Your task to perform on an android device: Open Reddit.com Image 0: 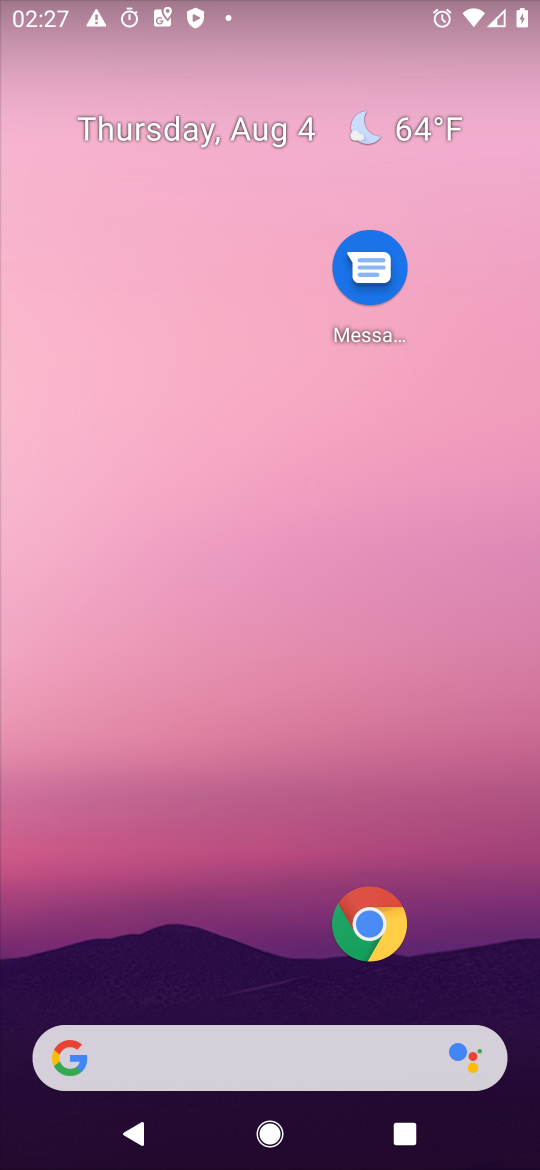
Step 0: click (184, 1067)
Your task to perform on an android device: Open Reddit.com Image 1: 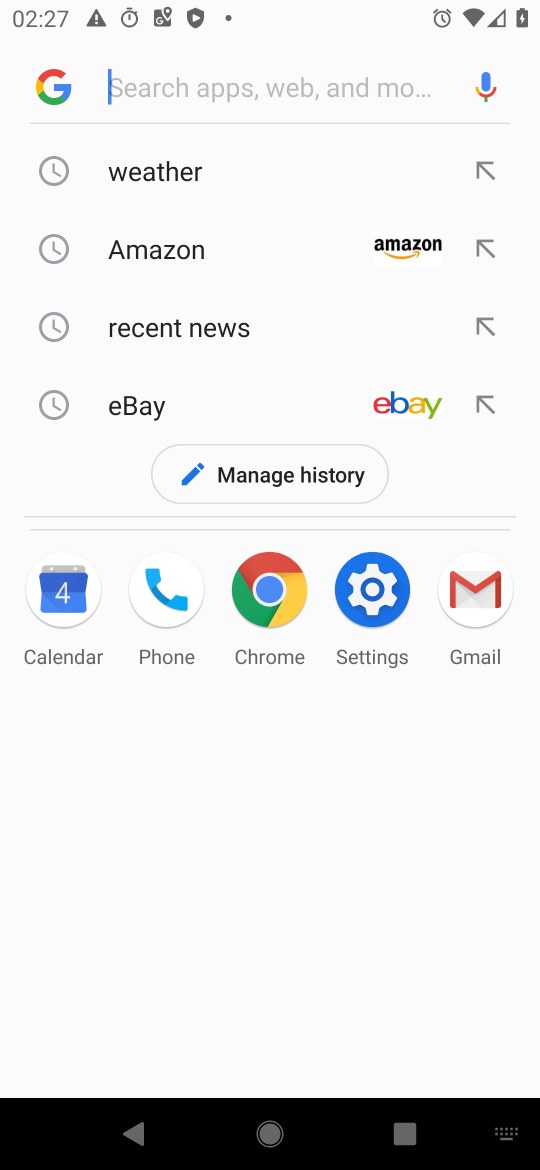
Step 1: type "Reddit.com"
Your task to perform on an android device: Open Reddit.com Image 2: 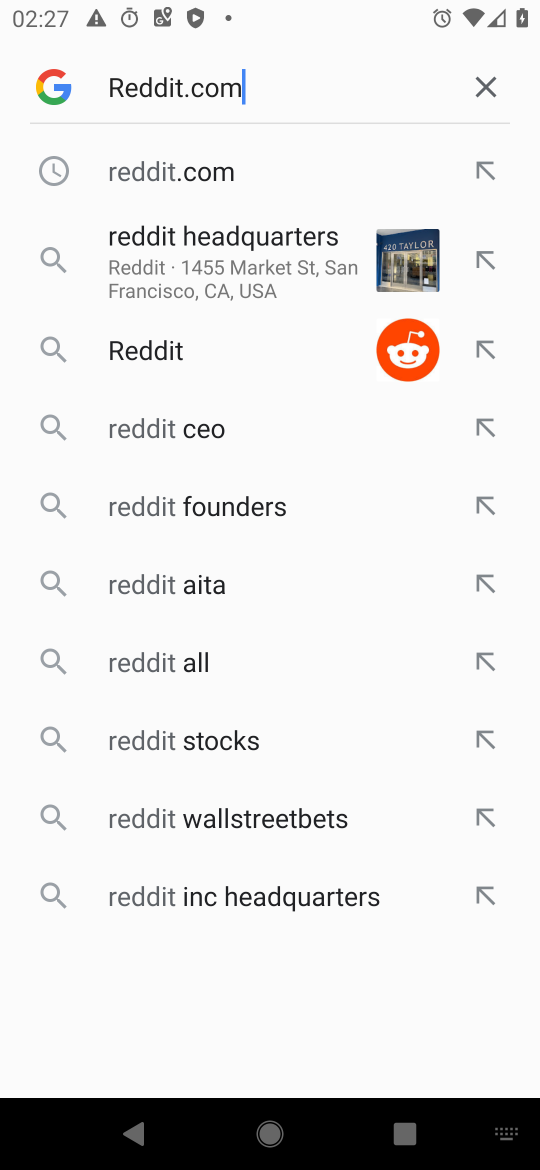
Step 2: type ""
Your task to perform on an android device: Open Reddit.com Image 3: 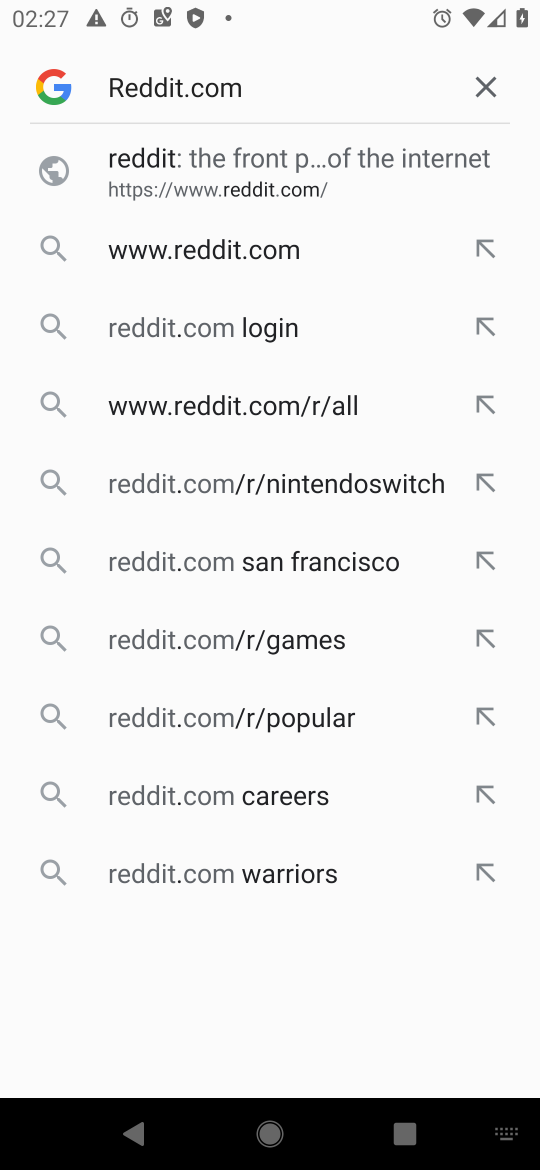
Step 3: click (182, 227)
Your task to perform on an android device: Open Reddit.com Image 4: 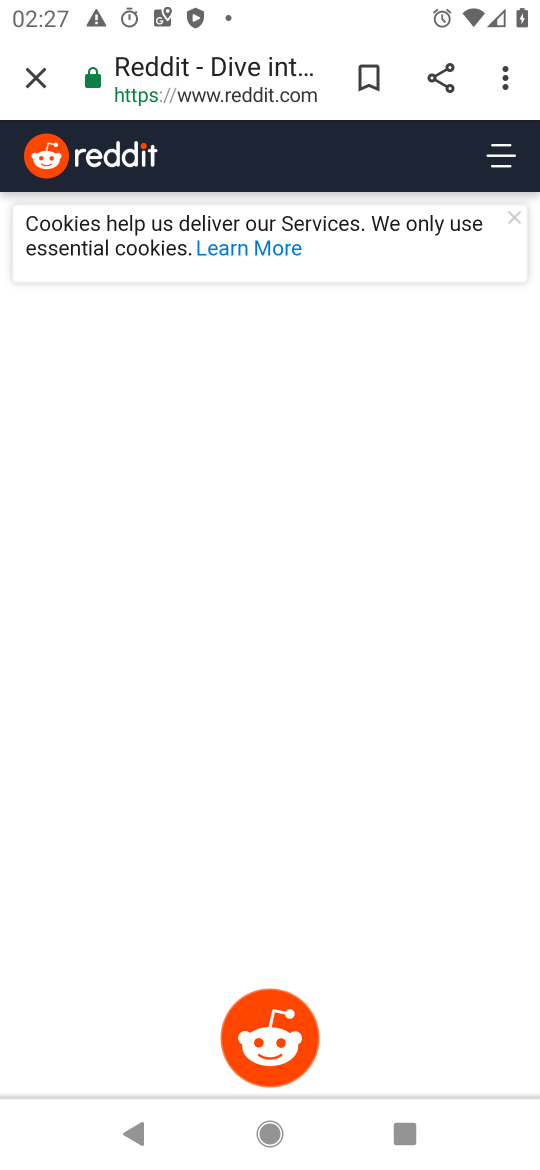
Step 4: task complete